Your task to perform on an android device: Open sound settings Image 0: 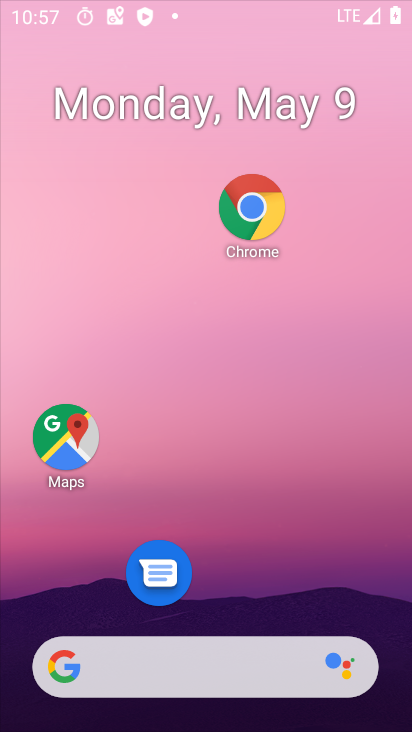
Step 0: drag from (278, 613) to (225, 22)
Your task to perform on an android device: Open sound settings Image 1: 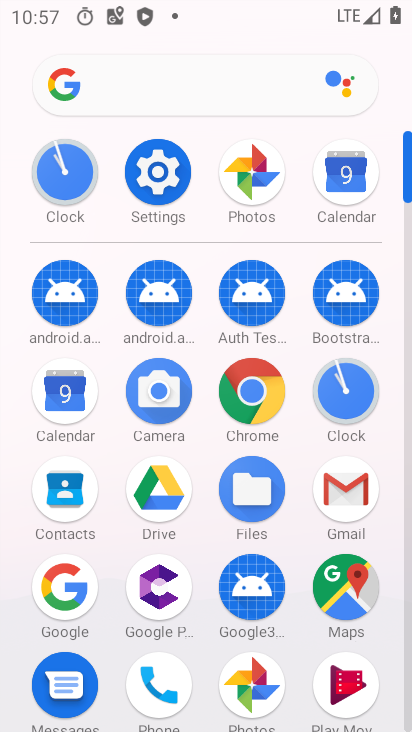
Step 1: click (169, 164)
Your task to perform on an android device: Open sound settings Image 2: 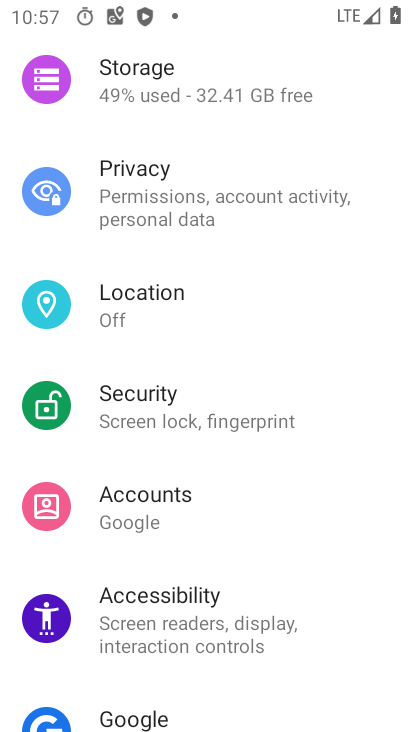
Step 2: drag from (122, 570) to (133, 274)
Your task to perform on an android device: Open sound settings Image 3: 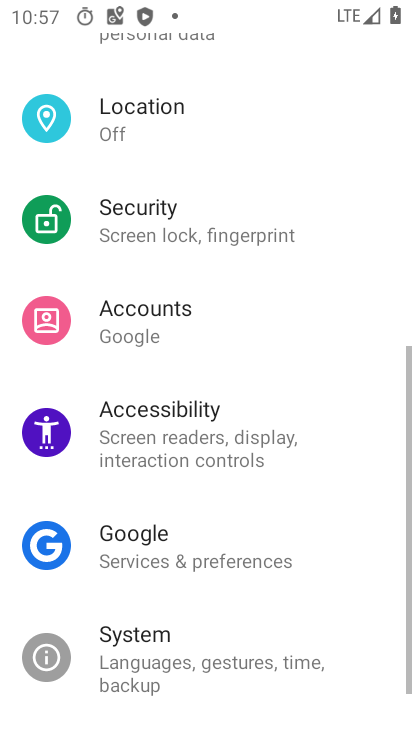
Step 3: drag from (133, 275) to (142, 617)
Your task to perform on an android device: Open sound settings Image 4: 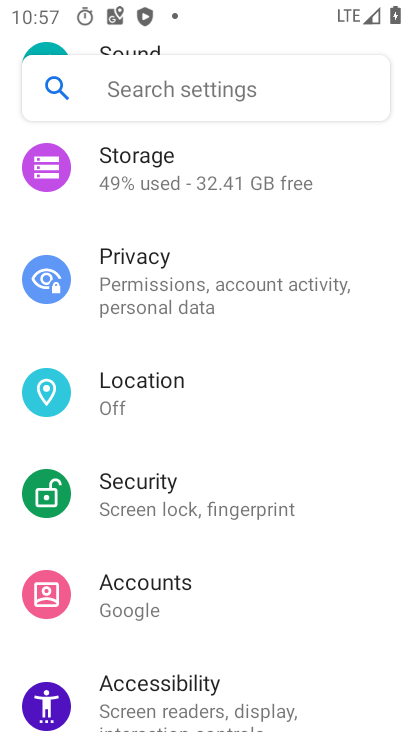
Step 4: drag from (170, 319) to (185, 617)
Your task to perform on an android device: Open sound settings Image 5: 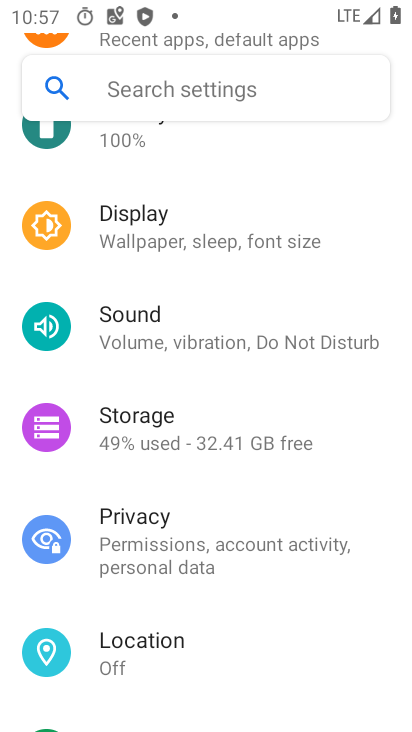
Step 5: click (227, 333)
Your task to perform on an android device: Open sound settings Image 6: 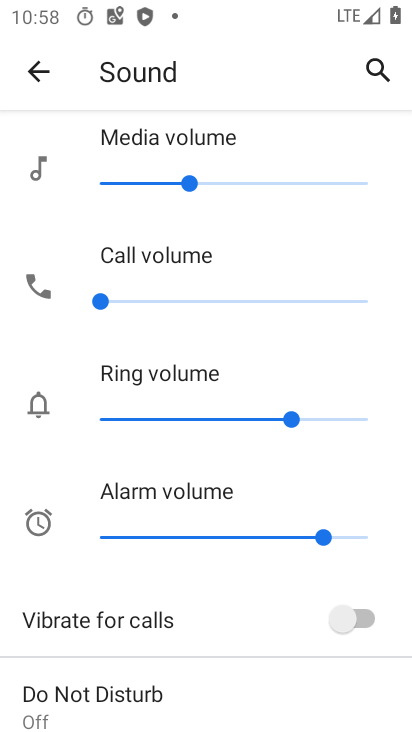
Step 6: task complete